Your task to perform on an android device: uninstall "Booking.com: Hotels and more" Image 0: 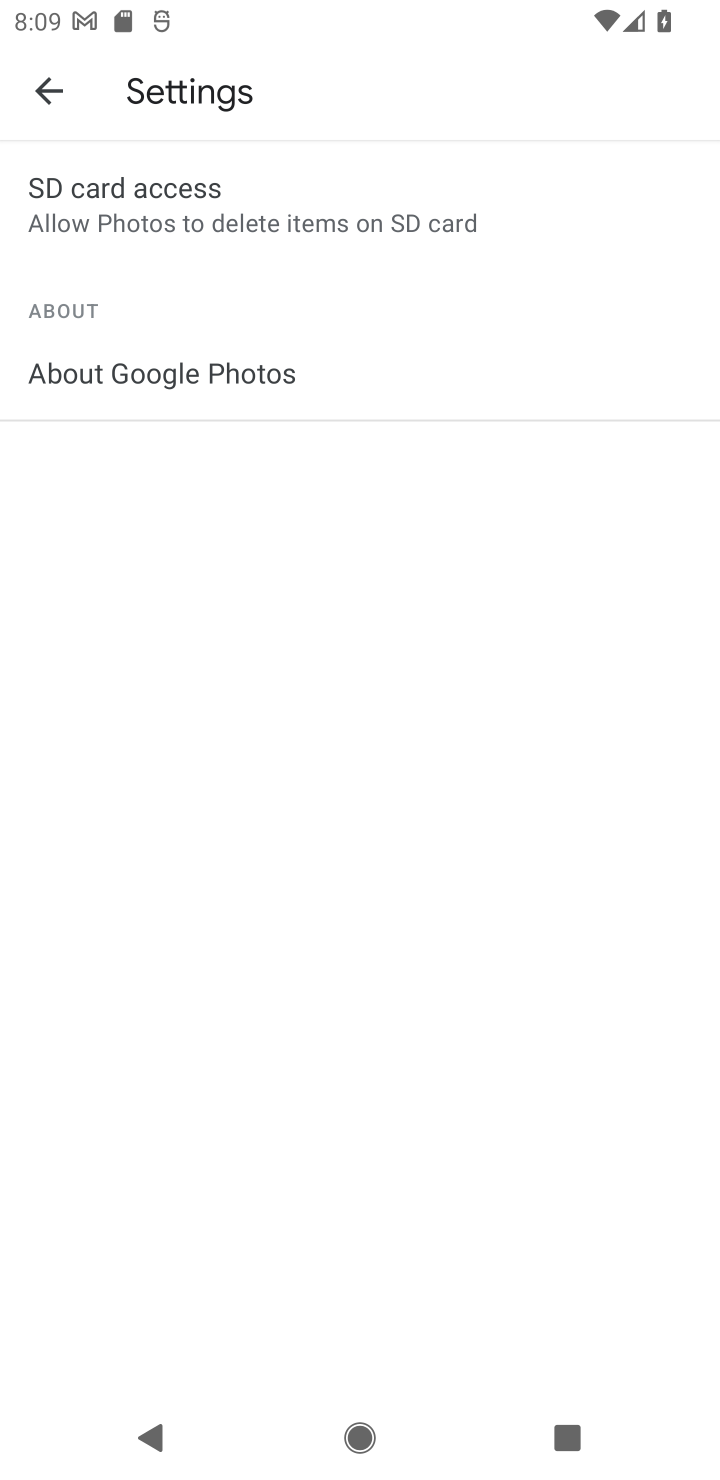
Step 0: click (57, 98)
Your task to perform on an android device: uninstall "Booking.com: Hotels and more" Image 1: 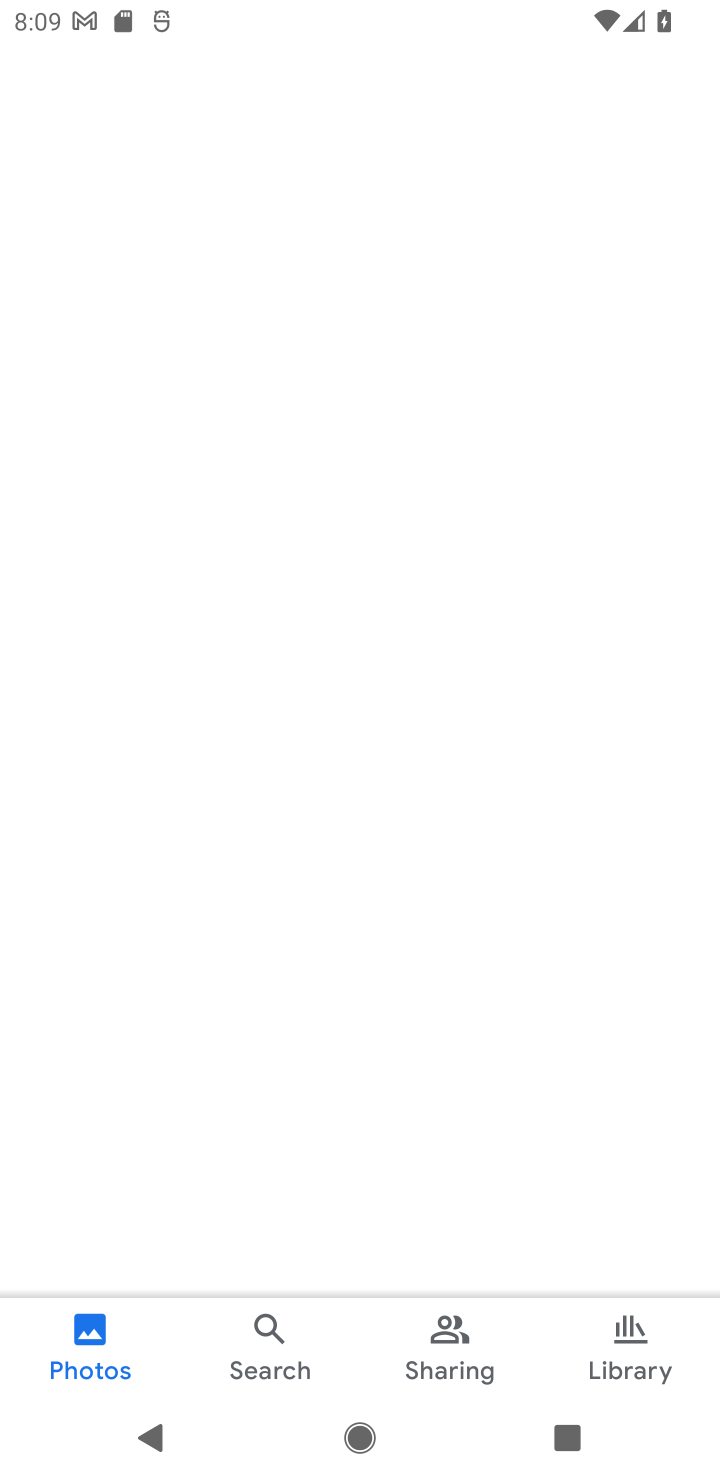
Step 1: click (57, 98)
Your task to perform on an android device: uninstall "Booking.com: Hotels and more" Image 2: 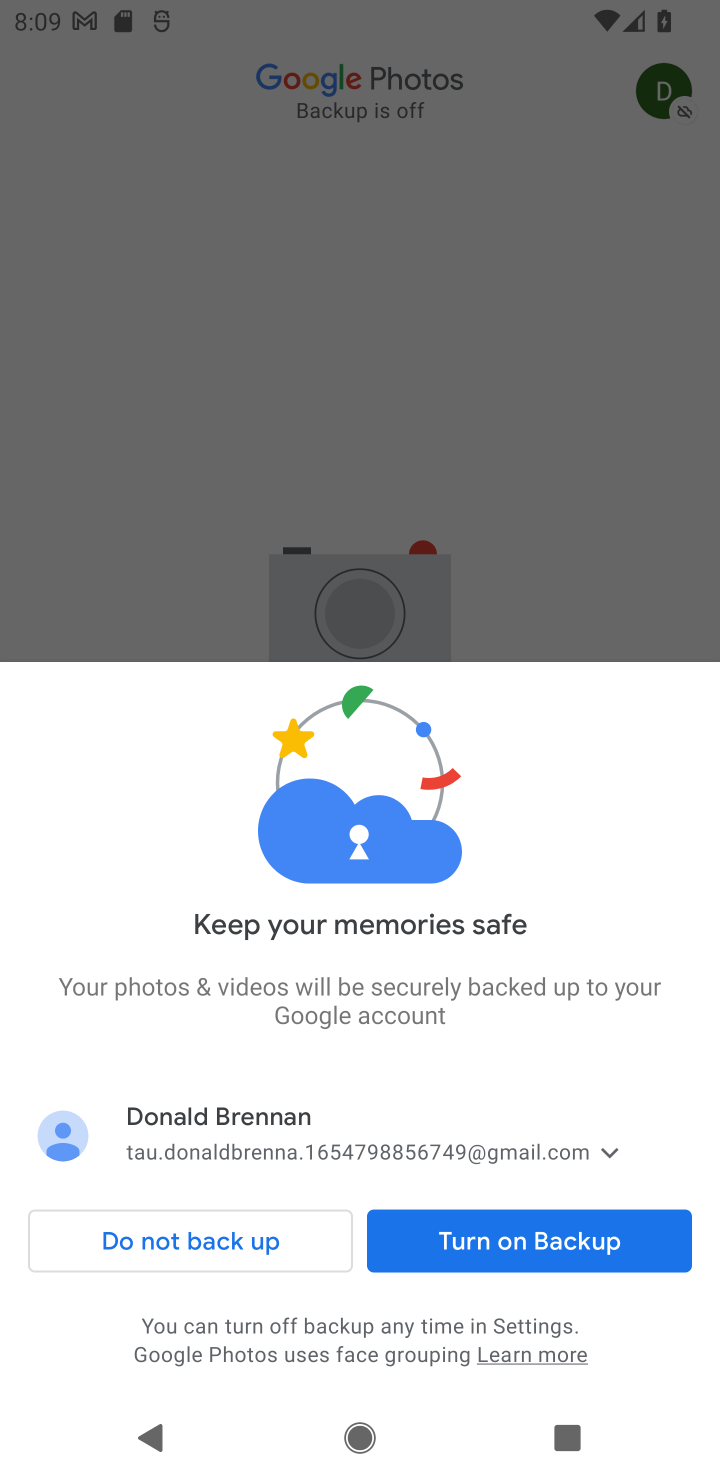
Step 2: press back button
Your task to perform on an android device: uninstall "Booking.com: Hotels and more" Image 3: 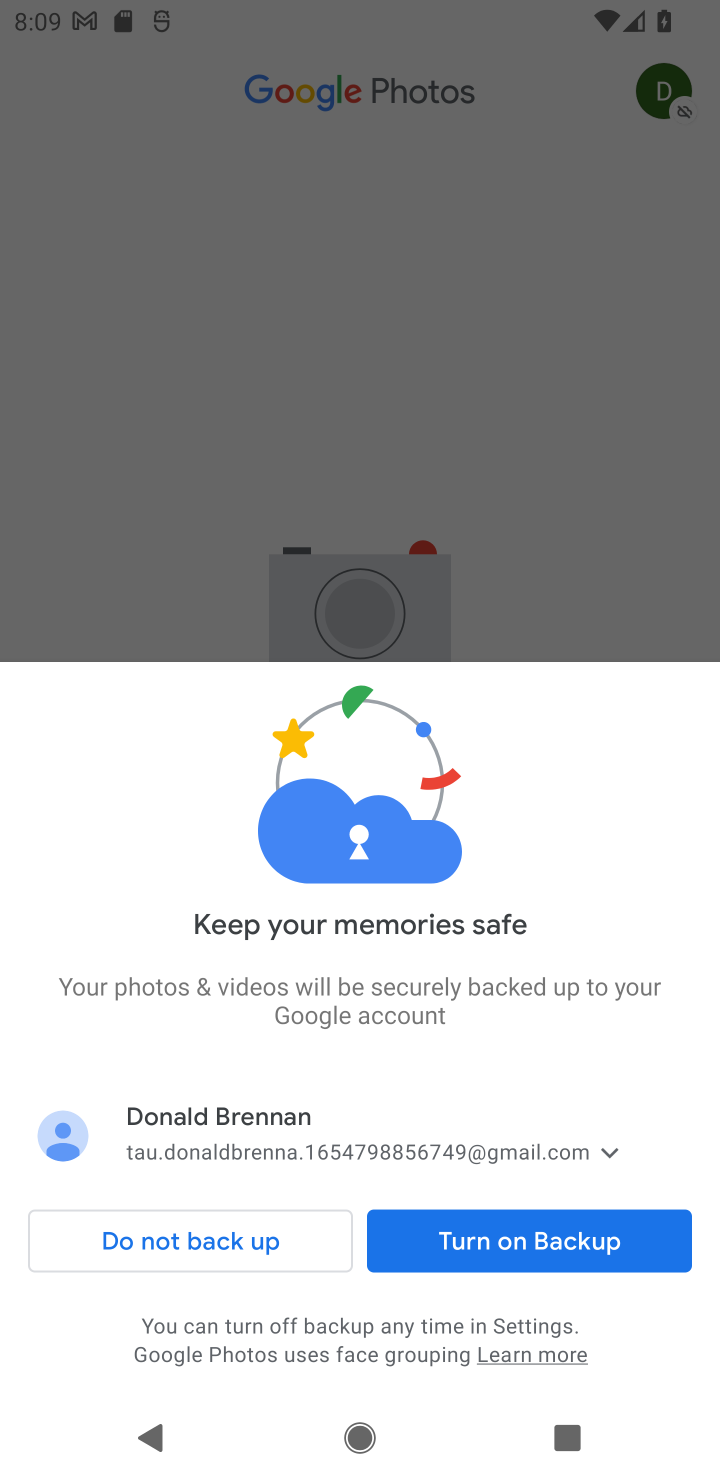
Step 3: press home button
Your task to perform on an android device: uninstall "Booking.com: Hotels and more" Image 4: 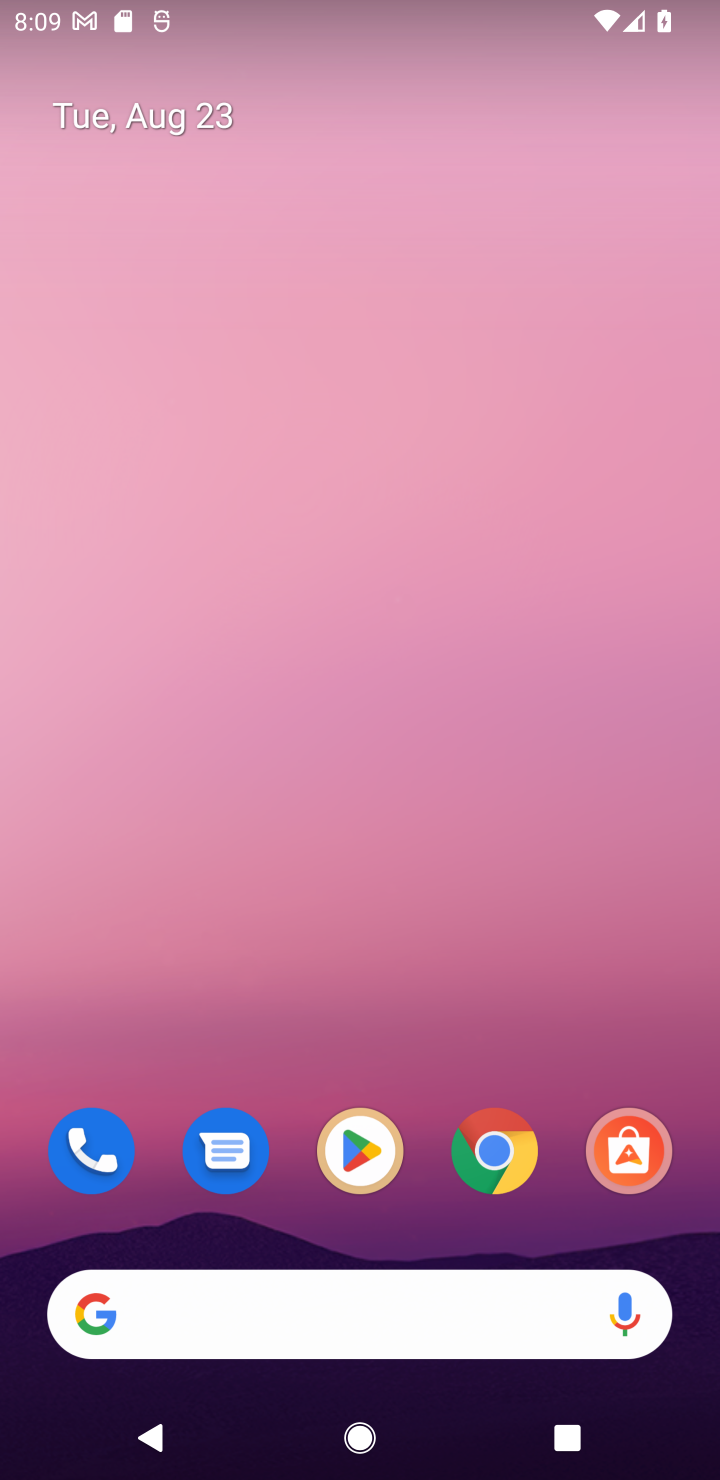
Step 4: press home button
Your task to perform on an android device: uninstall "Booking.com: Hotels and more" Image 5: 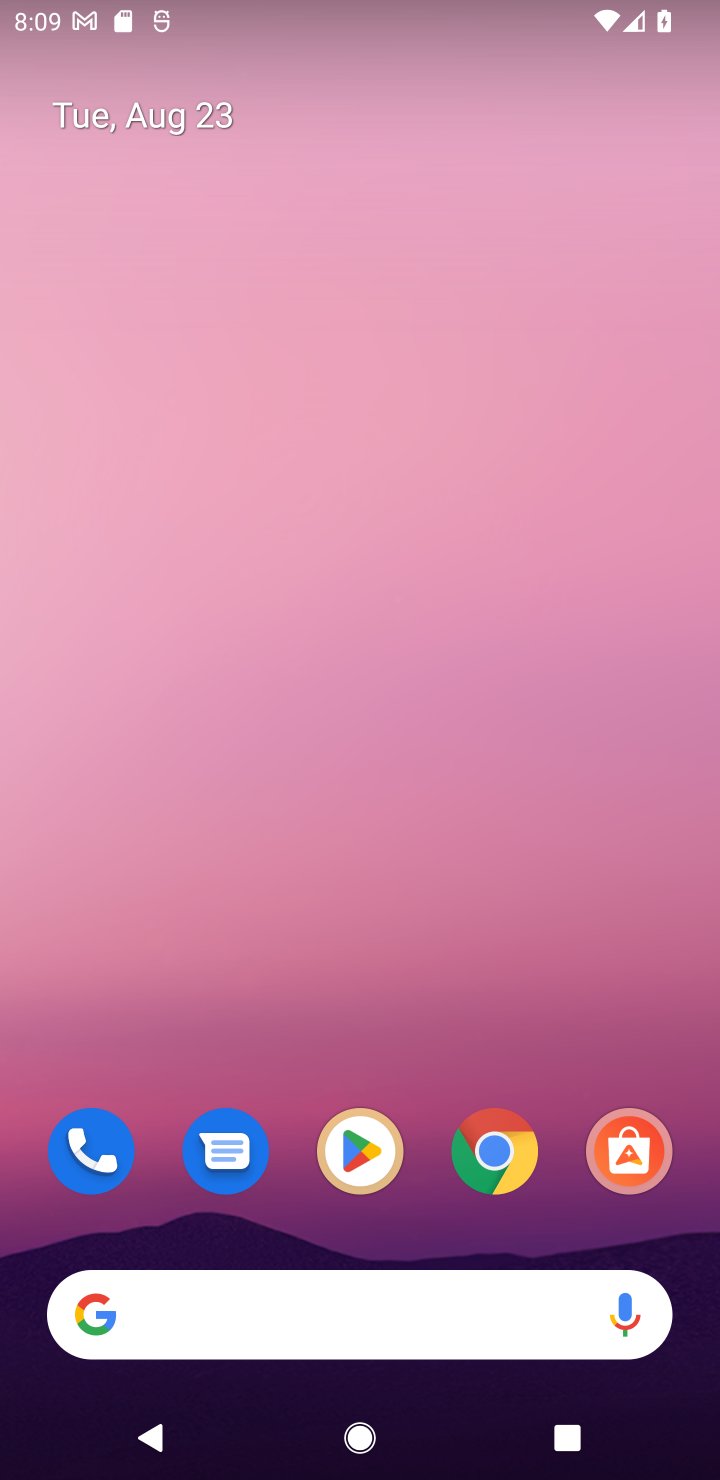
Step 5: press home button
Your task to perform on an android device: uninstall "Booking.com: Hotels and more" Image 6: 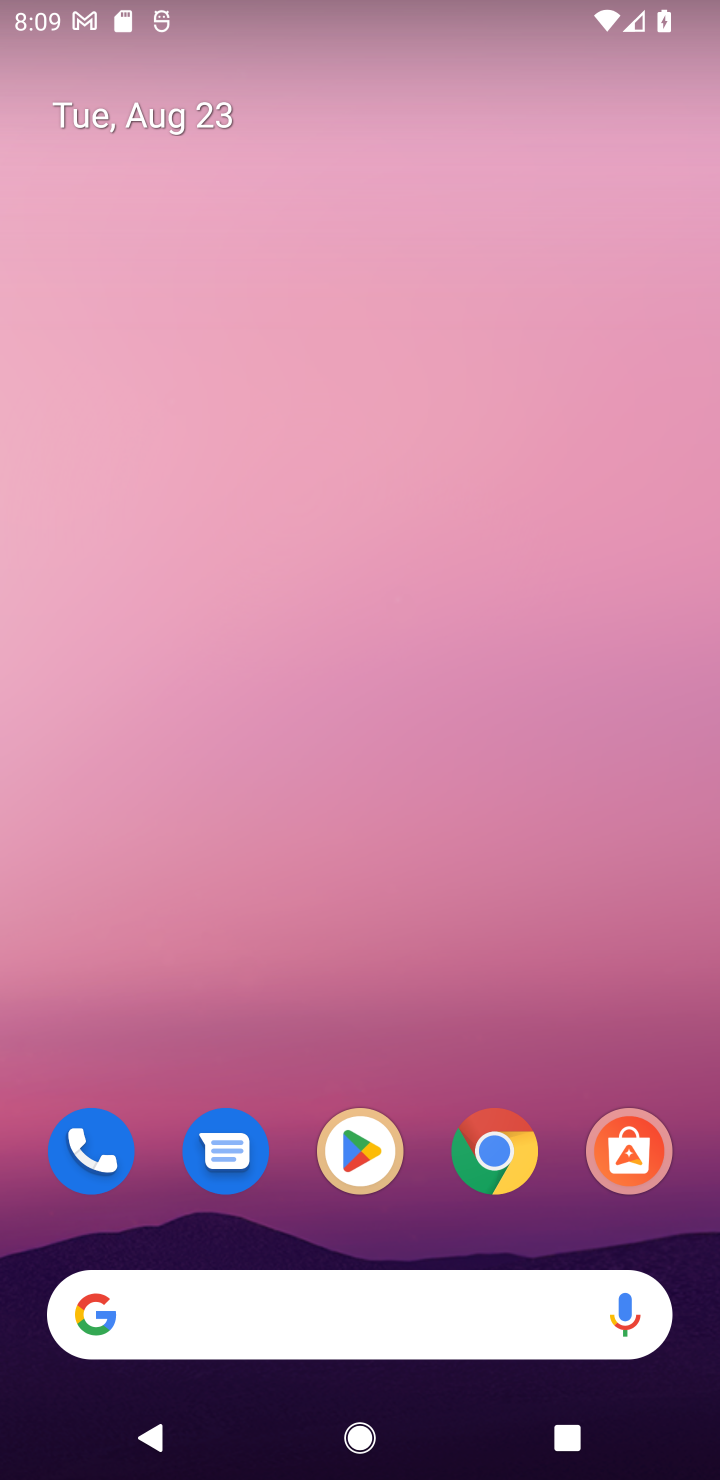
Step 6: click (348, 1145)
Your task to perform on an android device: uninstall "Booking.com: Hotels and more" Image 7: 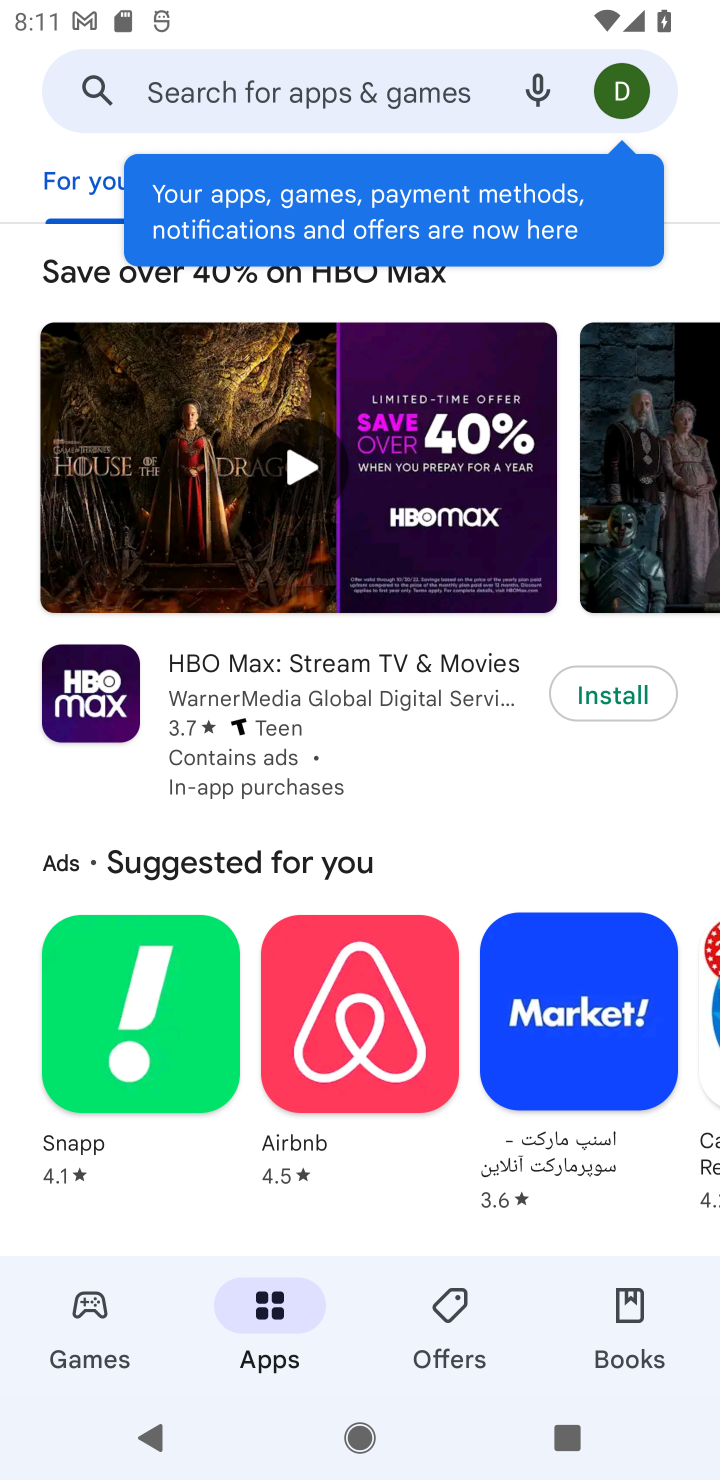
Step 7: click (332, 88)
Your task to perform on an android device: uninstall "Booking.com: Hotels and more" Image 8: 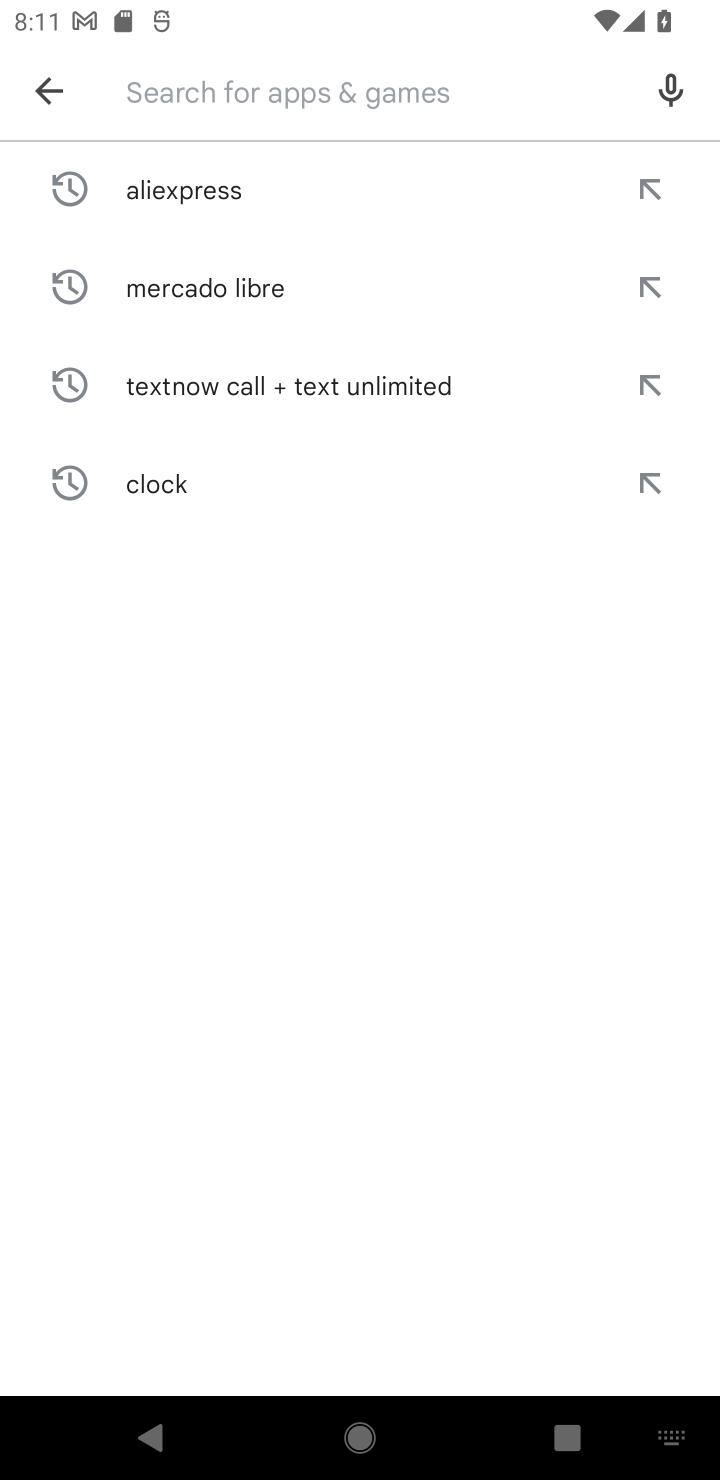
Step 8: type "Booking.com: Hotels and more"
Your task to perform on an android device: uninstall "Booking.com: Hotels and more" Image 9: 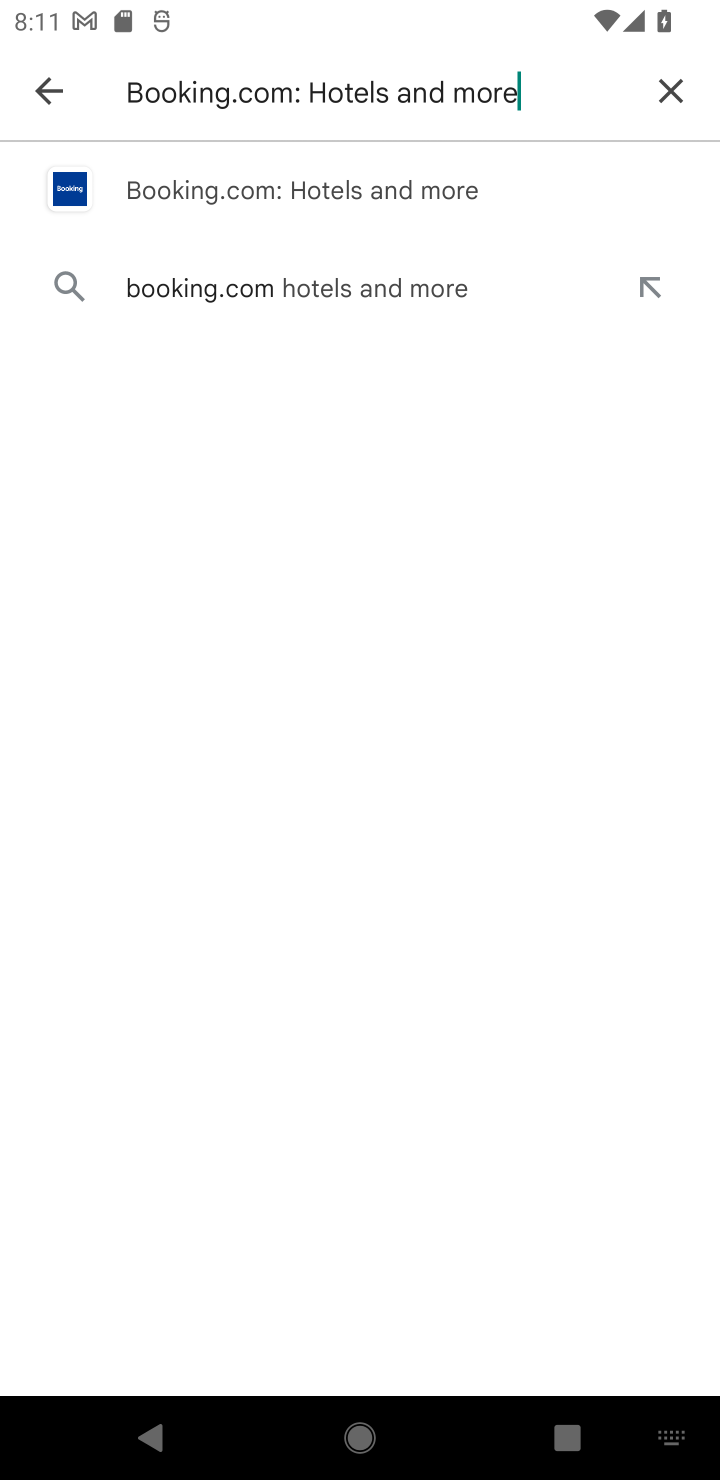
Step 9: click (220, 179)
Your task to perform on an android device: uninstall "Booking.com: Hotels and more" Image 10: 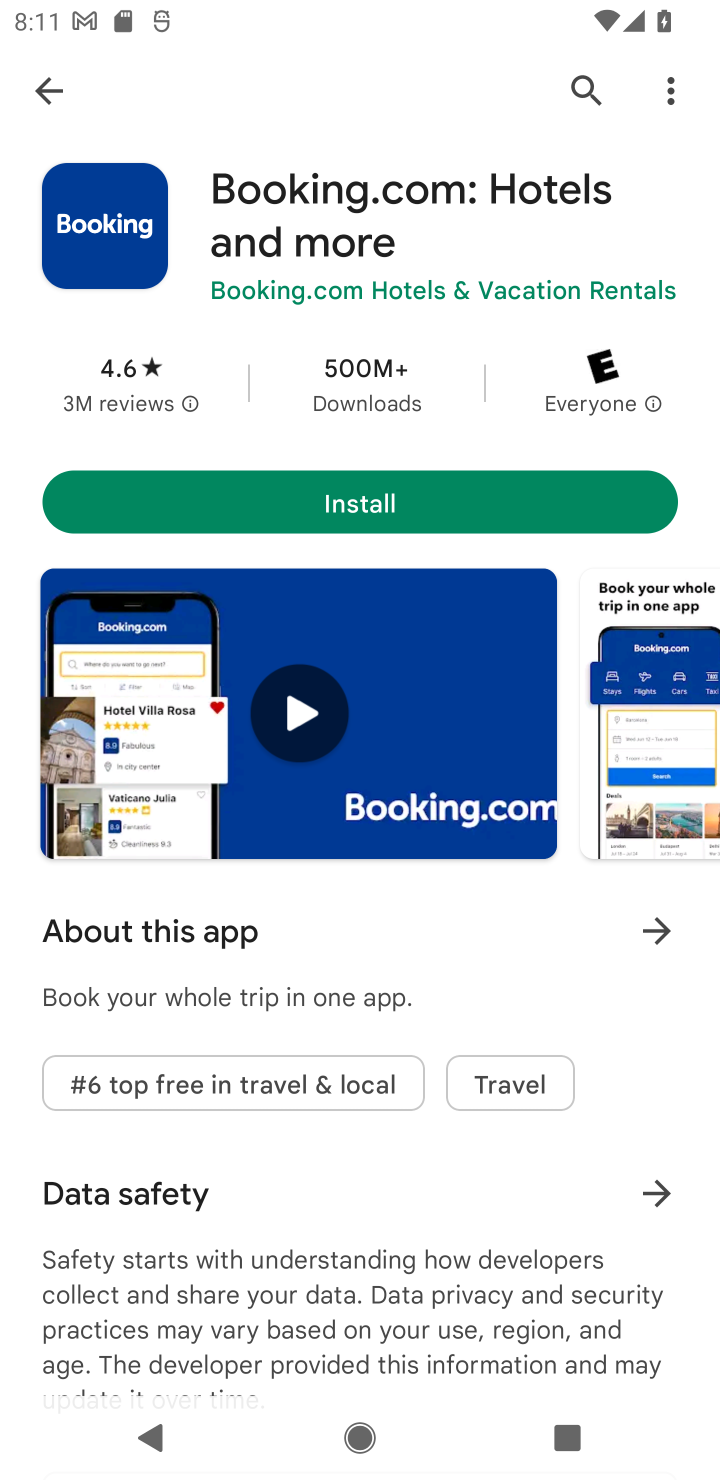
Step 10: task complete